Your task to perform on an android device: Go to wifi settings Image 0: 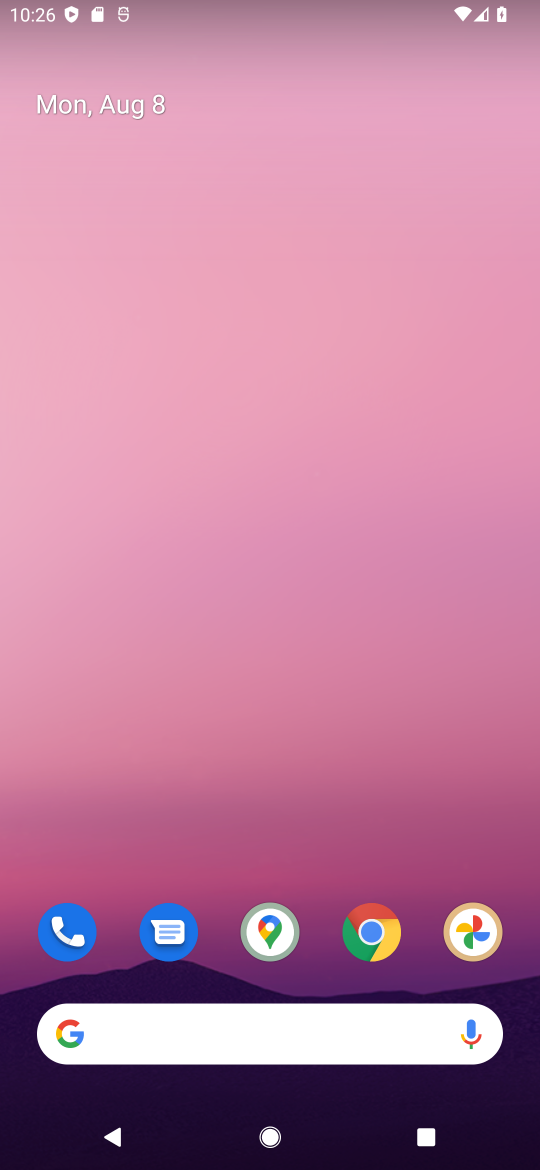
Step 0: drag from (204, 819) to (272, 94)
Your task to perform on an android device: Go to wifi settings Image 1: 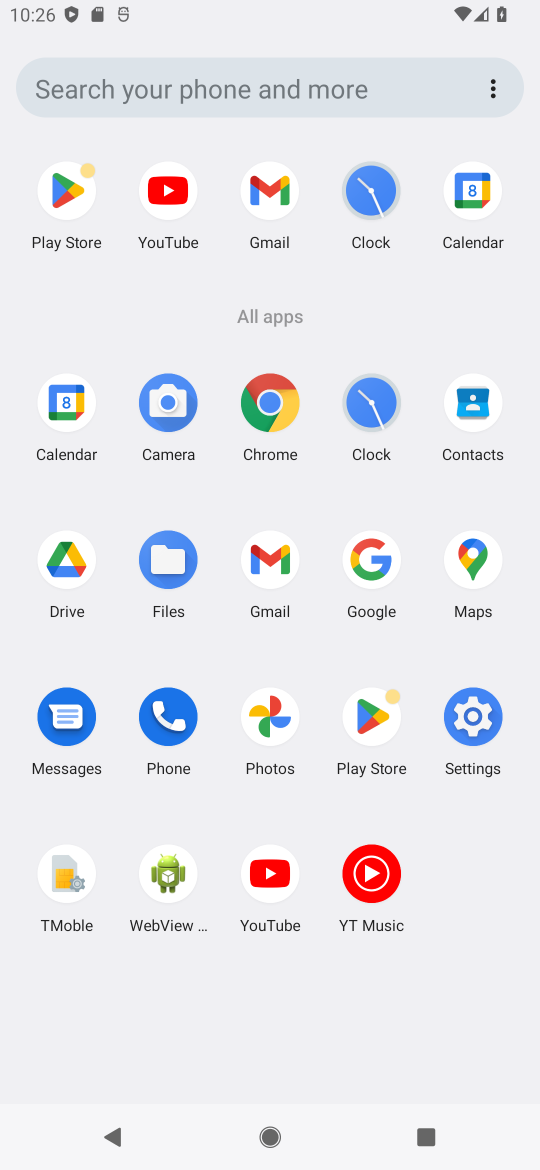
Step 1: click (490, 747)
Your task to perform on an android device: Go to wifi settings Image 2: 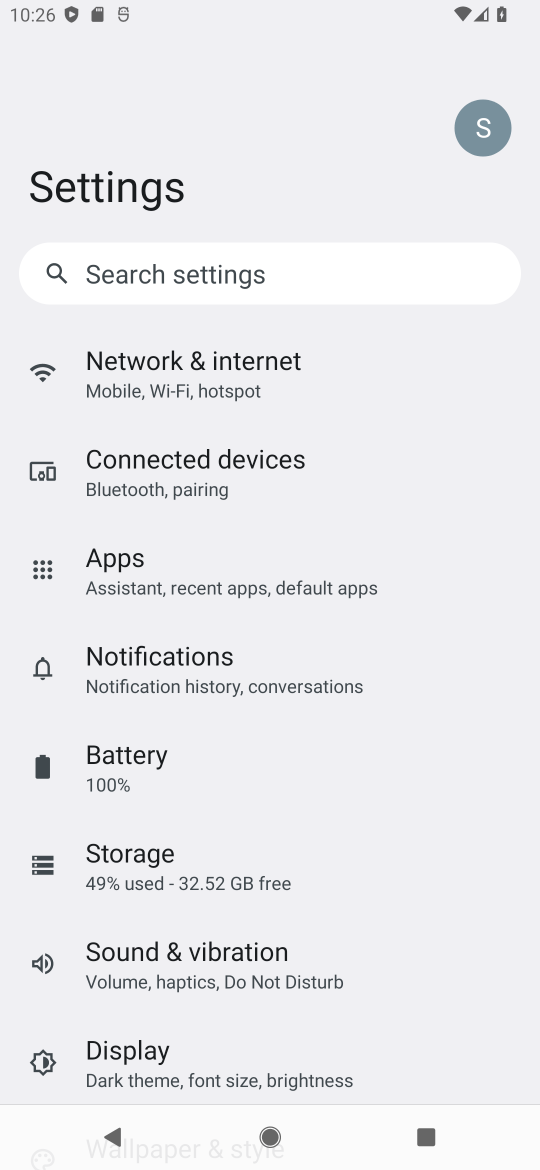
Step 2: click (164, 365)
Your task to perform on an android device: Go to wifi settings Image 3: 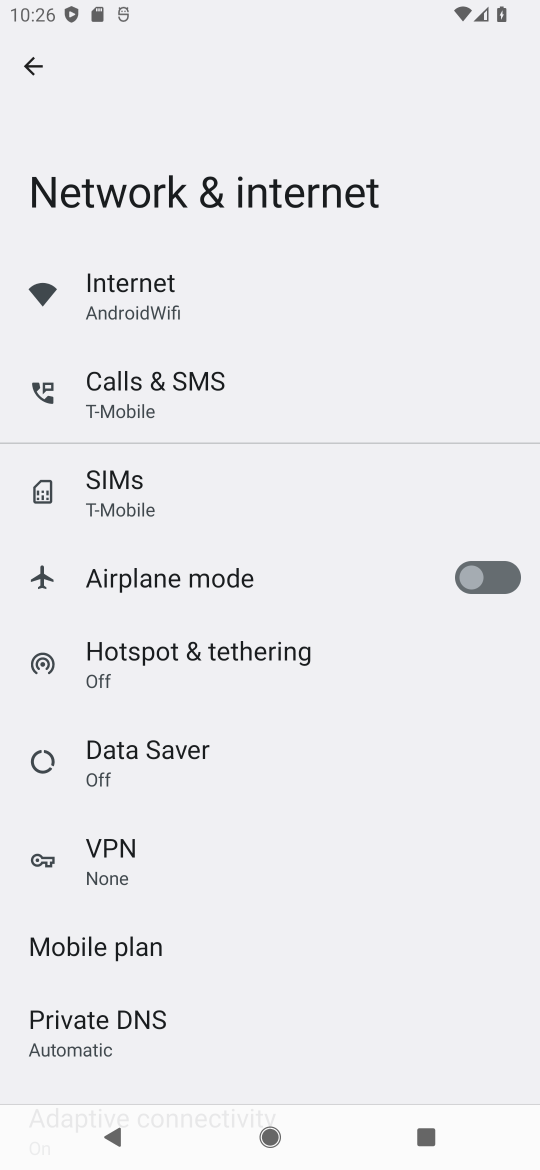
Step 3: task complete